Your task to perform on an android device: toggle airplane mode Image 0: 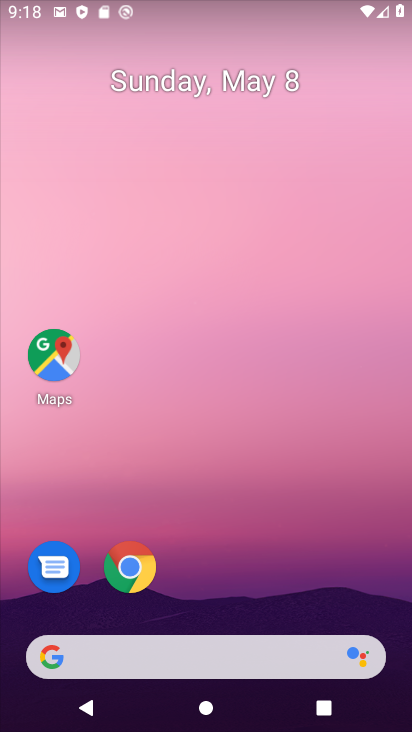
Step 0: drag from (229, 724) to (233, 101)
Your task to perform on an android device: toggle airplane mode Image 1: 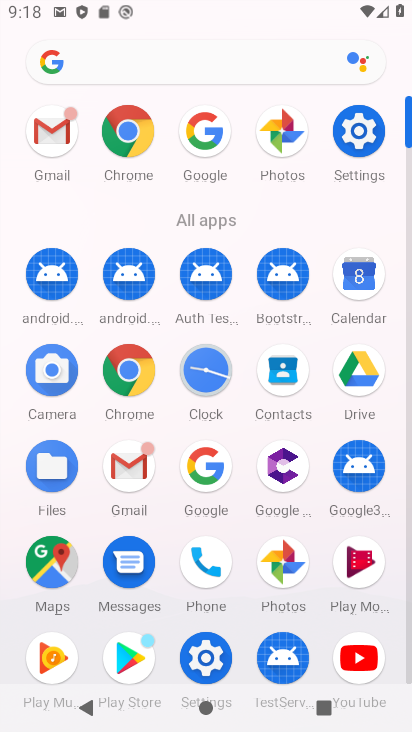
Step 1: click (368, 127)
Your task to perform on an android device: toggle airplane mode Image 2: 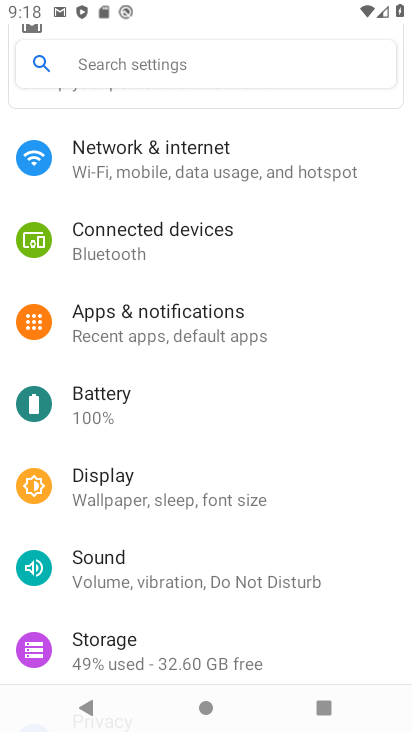
Step 2: click (150, 152)
Your task to perform on an android device: toggle airplane mode Image 3: 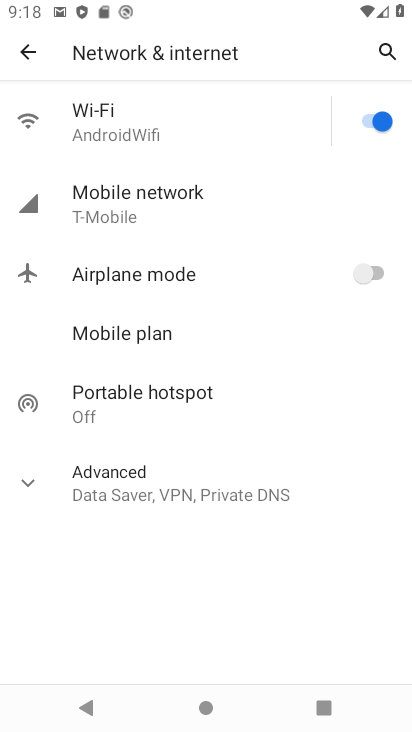
Step 3: click (376, 276)
Your task to perform on an android device: toggle airplane mode Image 4: 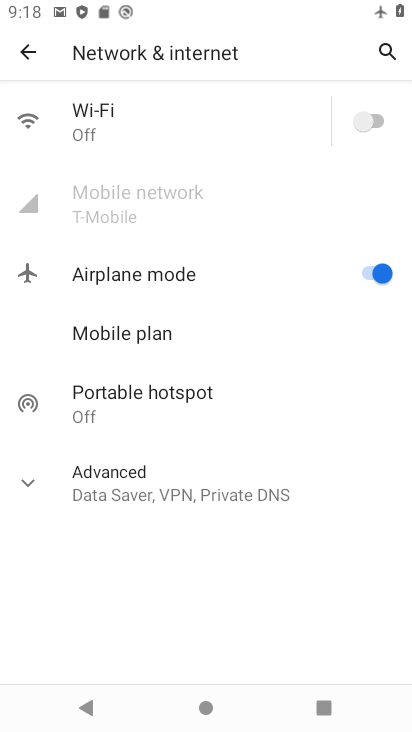
Step 4: task complete